Your task to perform on an android device: change the clock style Image 0: 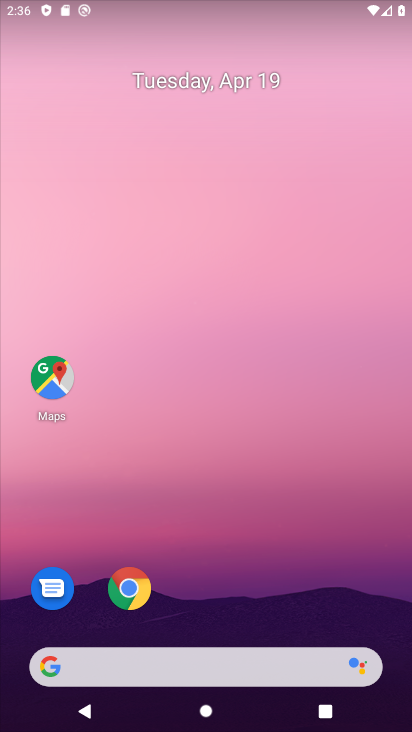
Step 0: drag from (279, 538) to (283, 151)
Your task to perform on an android device: change the clock style Image 1: 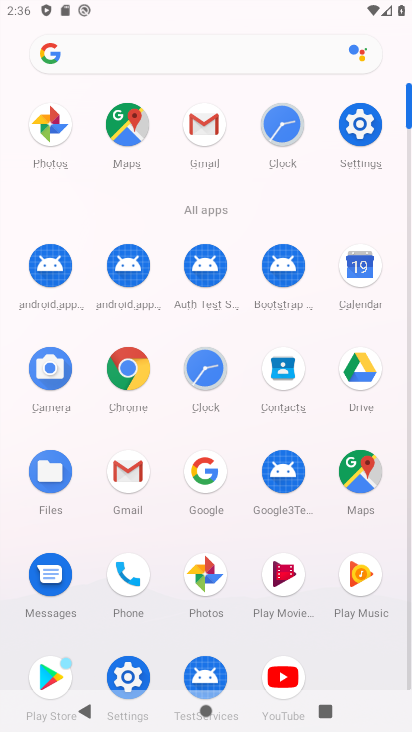
Step 1: click (280, 131)
Your task to perform on an android device: change the clock style Image 2: 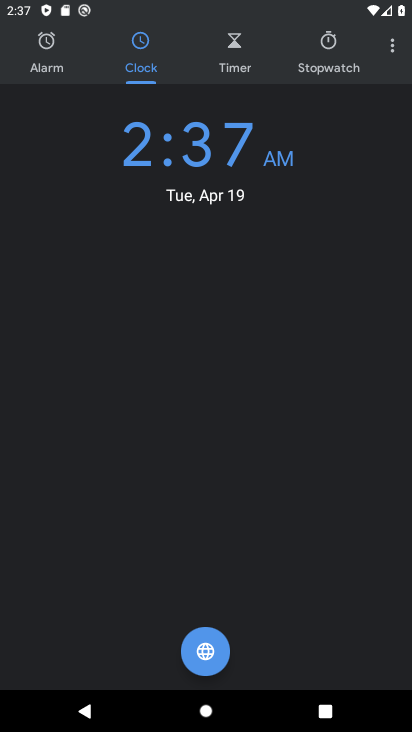
Step 2: click (383, 57)
Your task to perform on an android device: change the clock style Image 3: 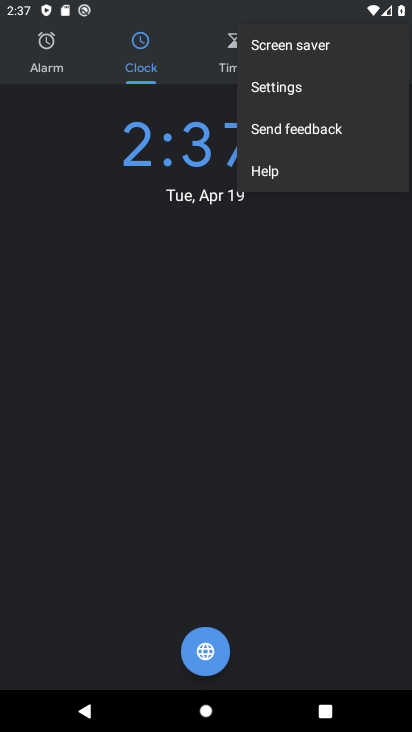
Step 3: click (285, 107)
Your task to perform on an android device: change the clock style Image 4: 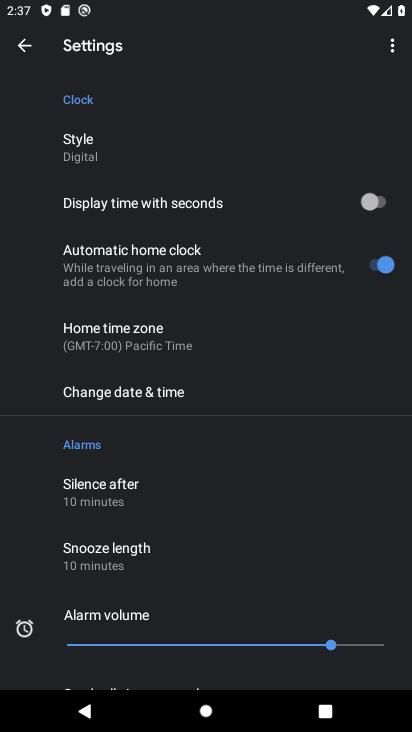
Step 4: click (118, 150)
Your task to perform on an android device: change the clock style Image 5: 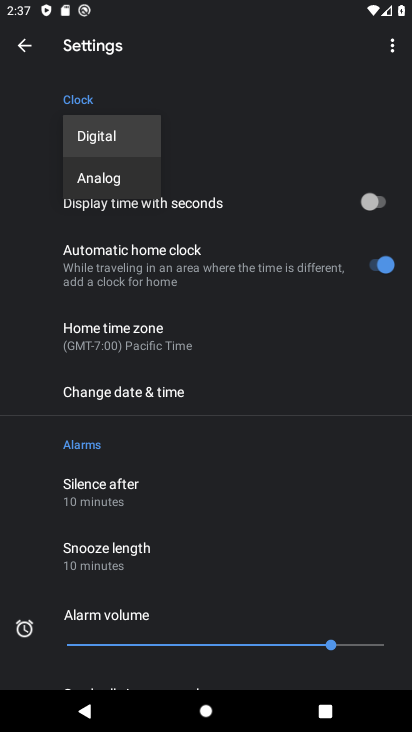
Step 5: click (121, 191)
Your task to perform on an android device: change the clock style Image 6: 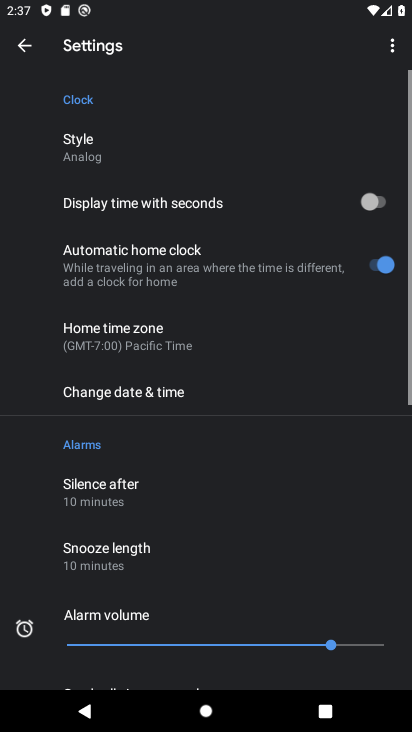
Step 6: task complete